Your task to perform on an android device: toggle location history Image 0: 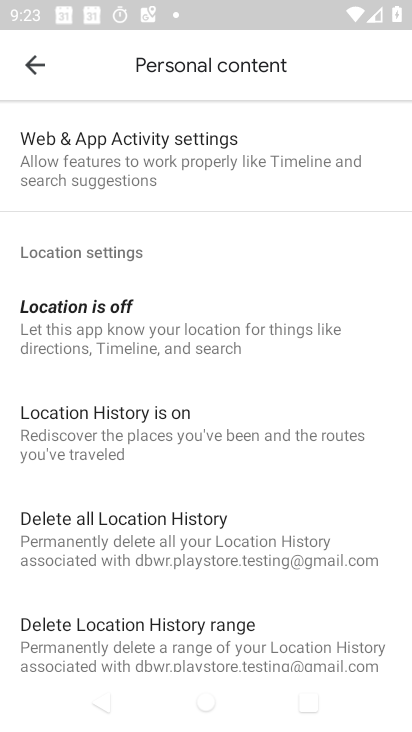
Step 0: press home button
Your task to perform on an android device: toggle location history Image 1: 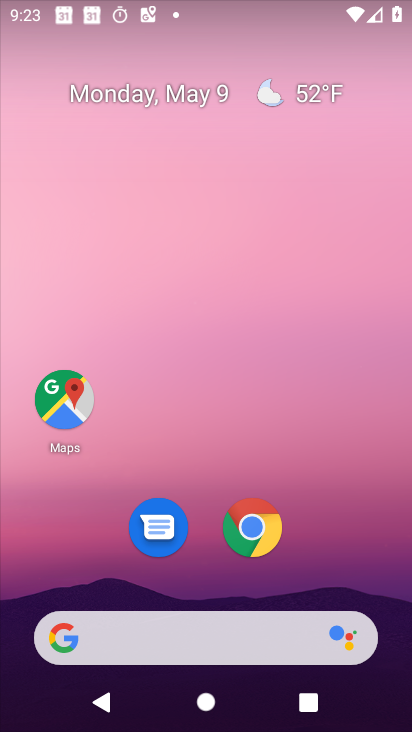
Step 1: drag from (329, 530) to (378, 69)
Your task to perform on an android device: toggle location history Image 2: 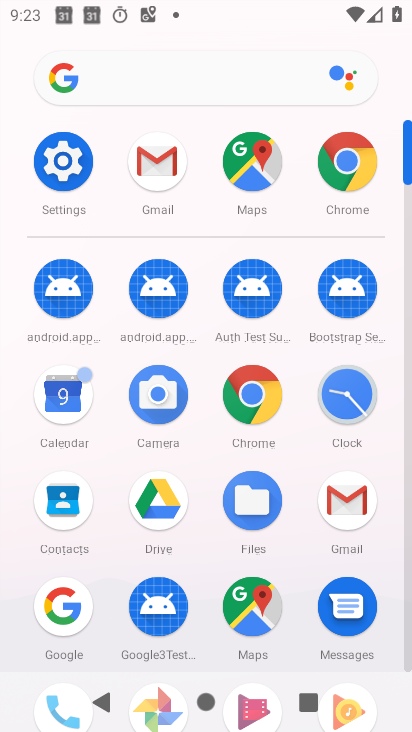
Step 2: click (53, 181)
Your task to perform on an android device: toggle location history Image 3: 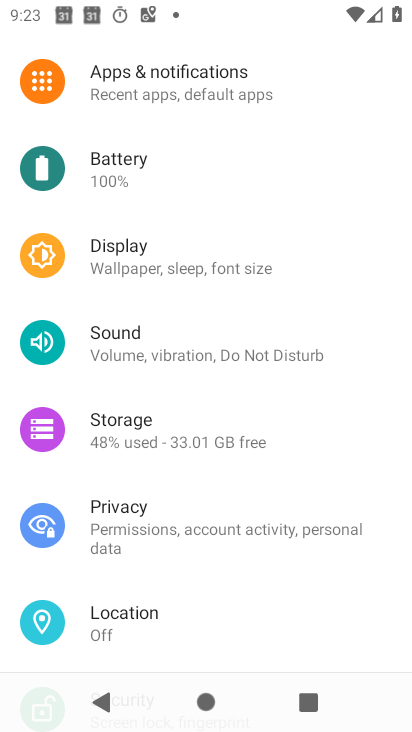
Step 3: click (191, 604)
Your task to perform on an android device: toggle location history Image 4: 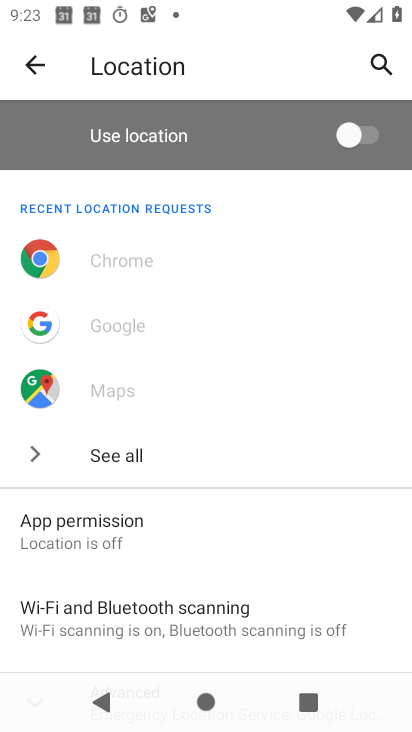
Step 4: drag from (305, 603) to (295, 297)
Your task to perform on an android device: toggle location history Image 5: 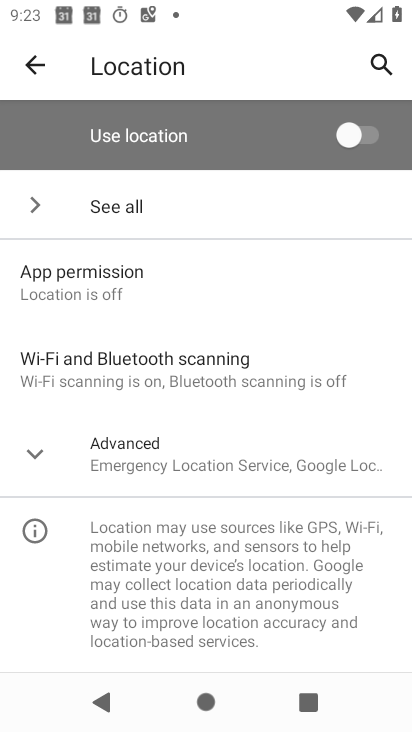
Step 5: click (231, 477)
Your task to perform on an android device: toggle location history Image 6: 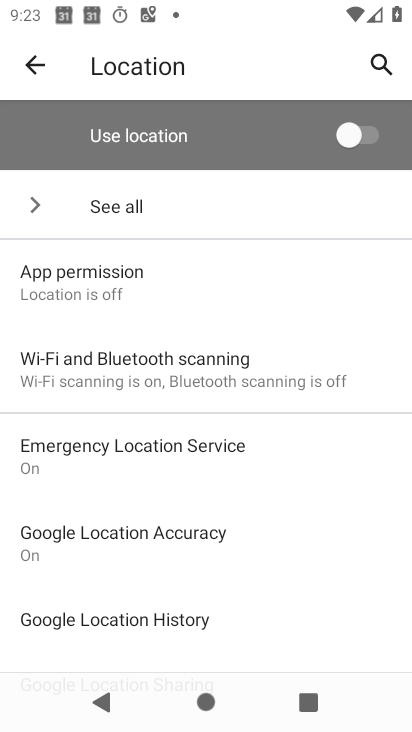
Step 6: click (160, 617)
Your task to perform on an android device: toggle location history Image 7: 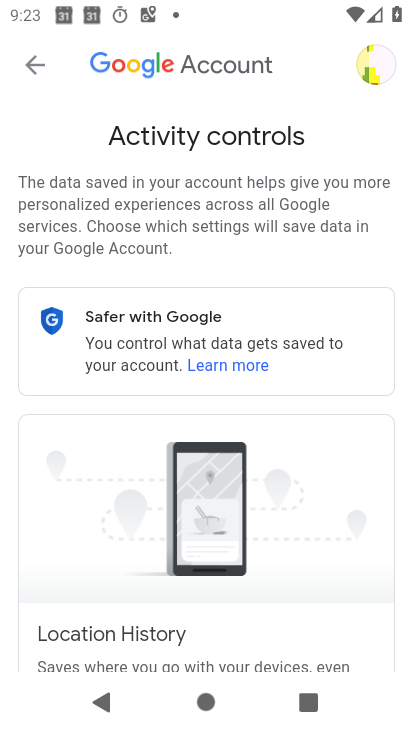
Step 7: drag from (128, 596) to (242, 188)
Your task to perform on an android device: toggle location history Image 8: 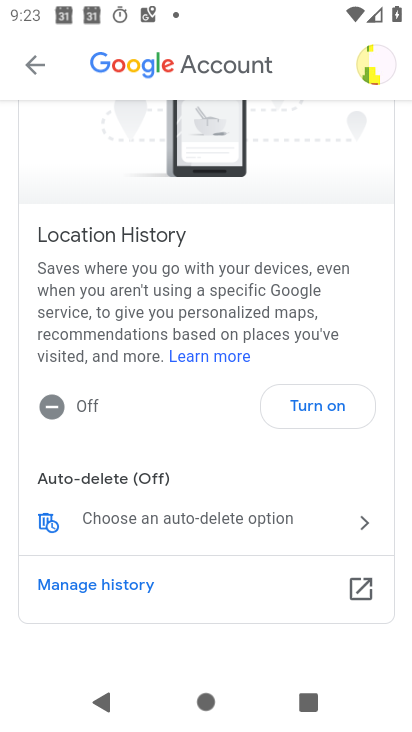
Step 8: click (298, 419)
Your task to perform on an android device: toggle location history Image 9: 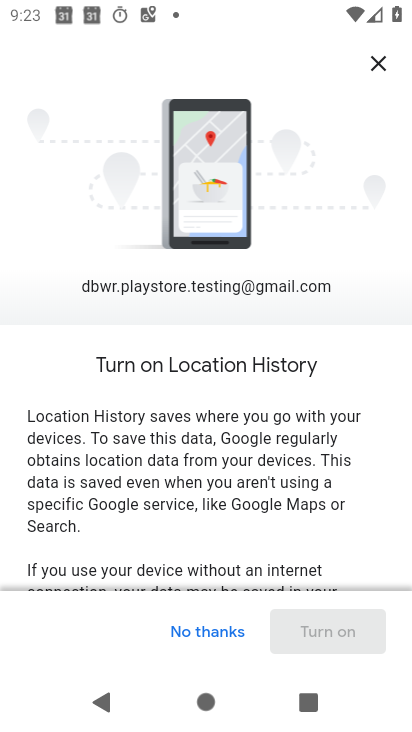
Step 9: drag from (264, 535) to (285, 7)
Your task to perform on an android device: toggle location history Image 10: 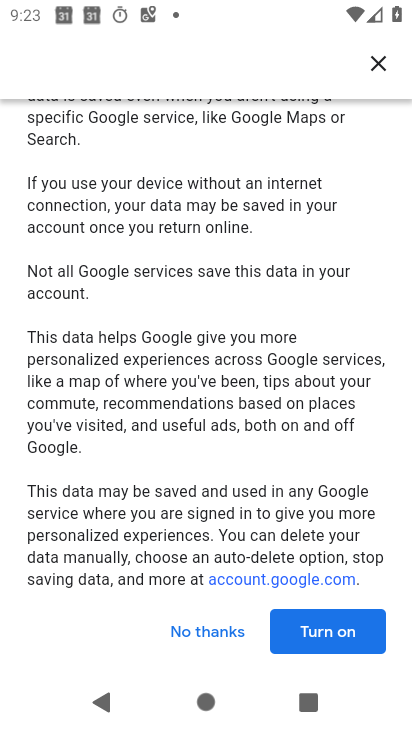
Step 10: click (357, 643)
Your task to perform on an android device: toggle location history Image 11: 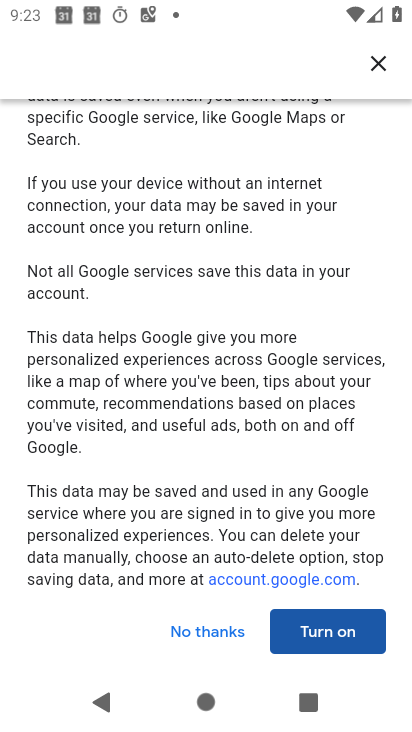
Step 11: click (354, 643)
Your task to perform on an android device: toggle location history Image 12: 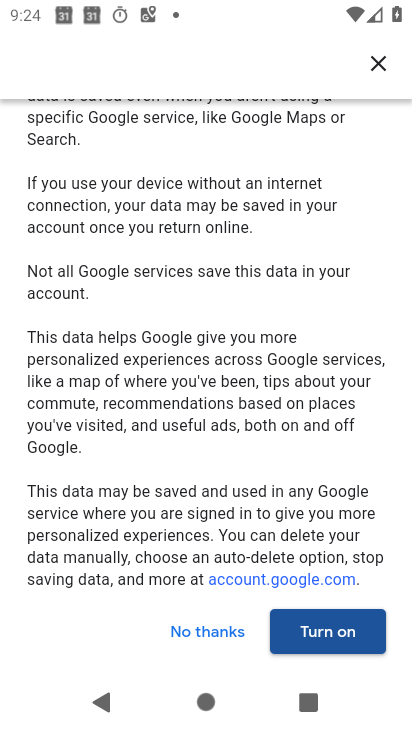
Step 12: click (354, 643)
Your task to perform on an android device: toggle location history Image 13: 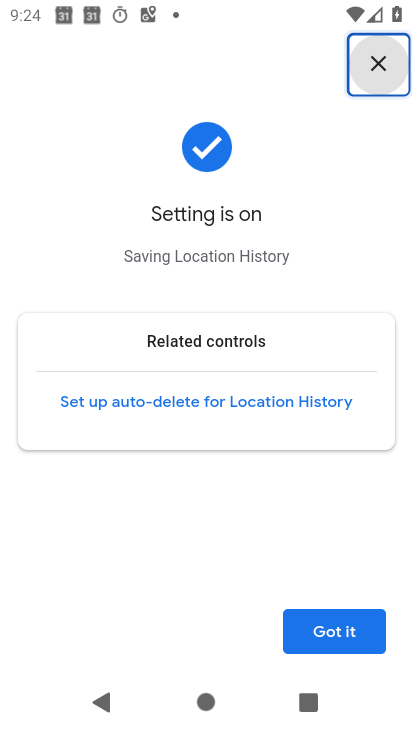
Step 13: task complete